Your task to perform on an android device: toggle sleep mode Image 0: 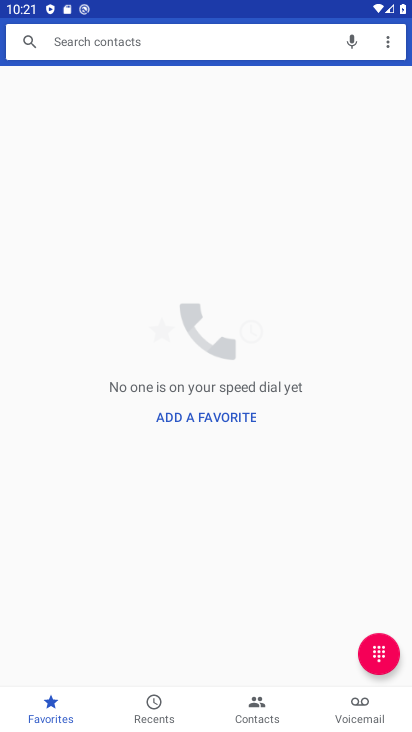
Step 0: press home button
Your task to perform on an android device: toggle sleep mode Image 1: 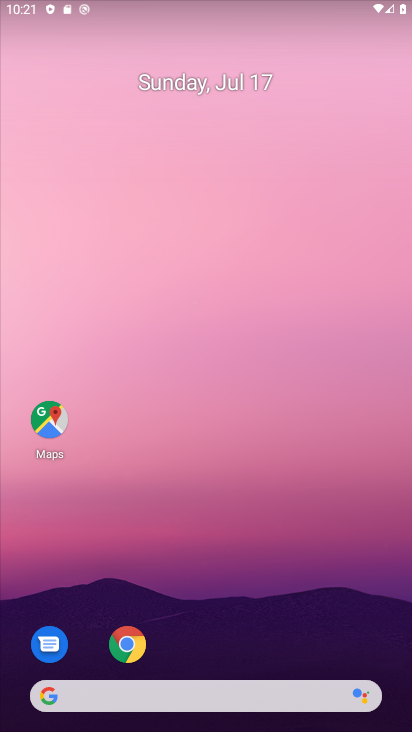
Step 1: drag from (314, 608) to (338, 41)
Your task to perform on an android device: toggle sleep mode Image 2: 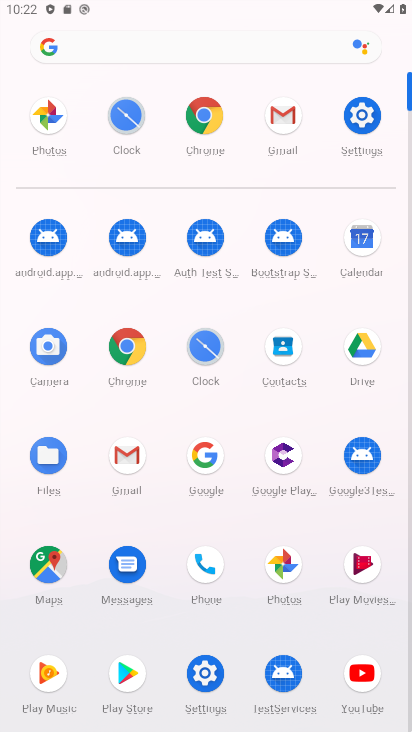
Step 2: click (359, 126)
Your task to perform on an android device: toggle sleep mode Image 3: 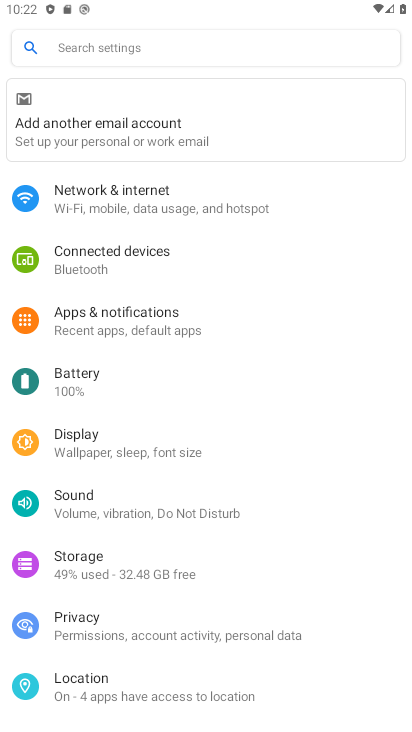
Step 3: click (119, 439)
Your task to perform on an android device: toggle sleep mode Image 4: 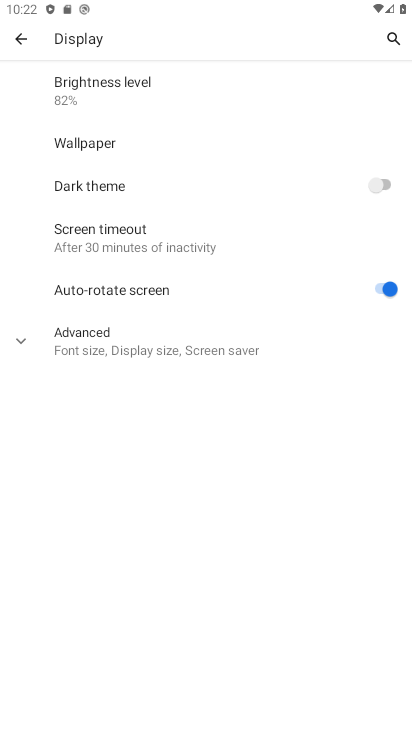
Step 4: click (86, 234)
Your task to perform on an android device: toggle sleep mode Image 5: 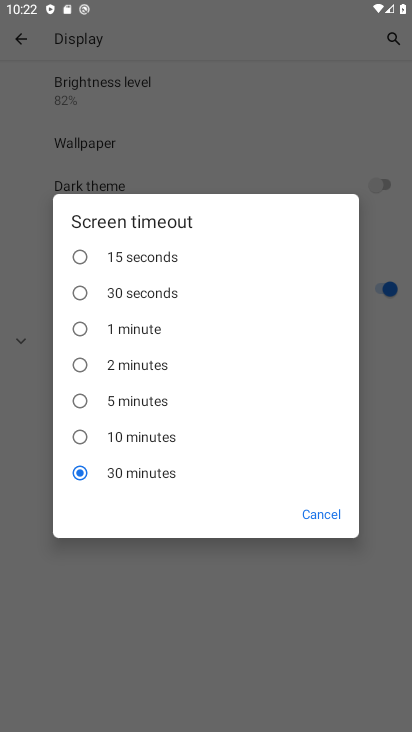
Step 5: click (104, 341)
Your task to perform on an android device: toggle sleep mode Image 6: 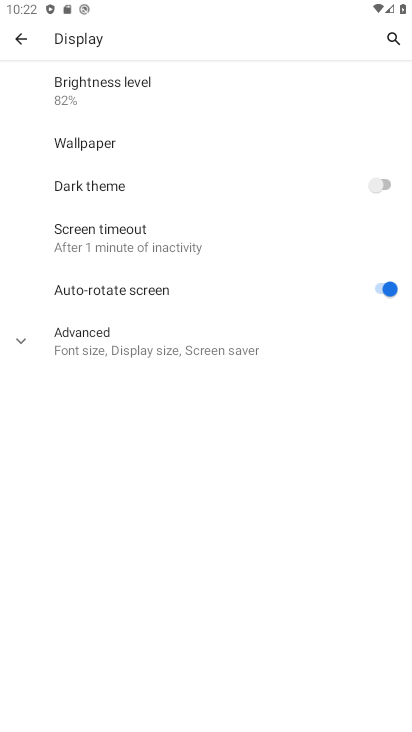
Step 6: task complete